Your task to perform on an android device: stop showing notifications on the lock screen Image 0: 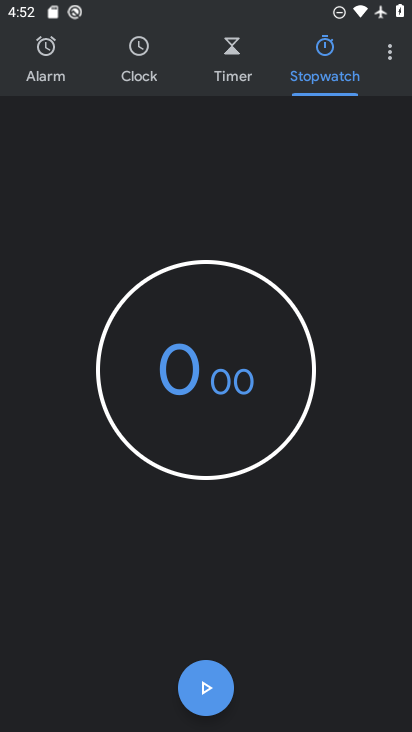
Step 0: press home button
Your task to perform on an android device: stop showing notifications on the lock screen Image 1: 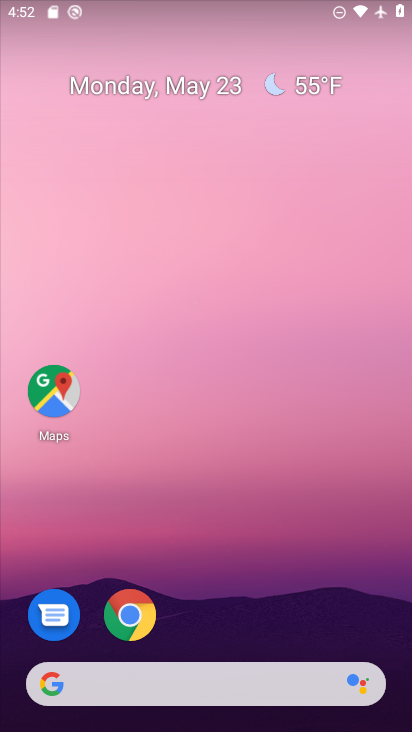
Step 1: drag from (361, 619) to (336, 197)
Your task to perform on an android device: stop showing notifications on the lock screen Image 2: 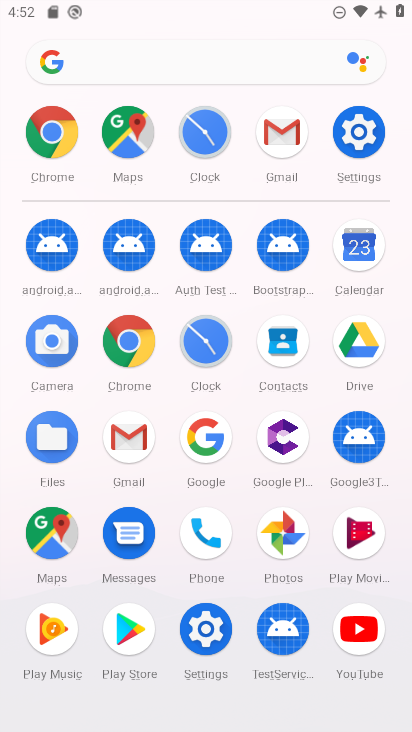
Step 2: click (224, 642)
Your task to perform on an android device: stop showing notifications on the lock screen Image 3: 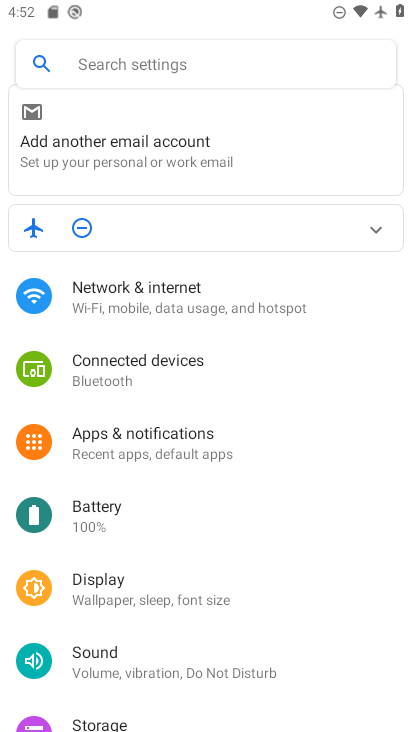
Step 3: drag from (367, 568) to (369, 473)
Your task to perform on an android device: stop showing notifications on the lock screen Image 4: 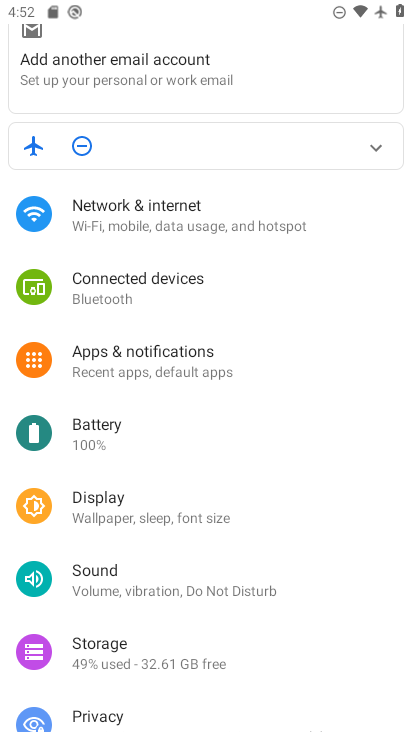
Step 4: drag from (359, 622) to (347, 485)
Your task to perform on an android device: stop showing notifications on the lock screen Image 5: 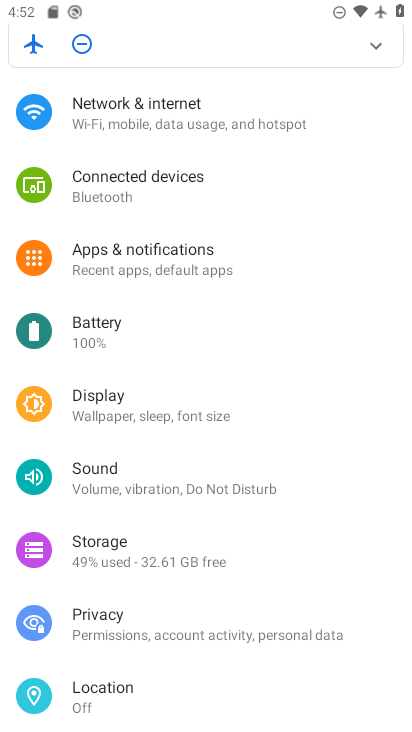
Step 5: drag from (358, 618) to (364, 398)
Your task to perform on an android device: stop showing notifications on the lock screen Image 6: 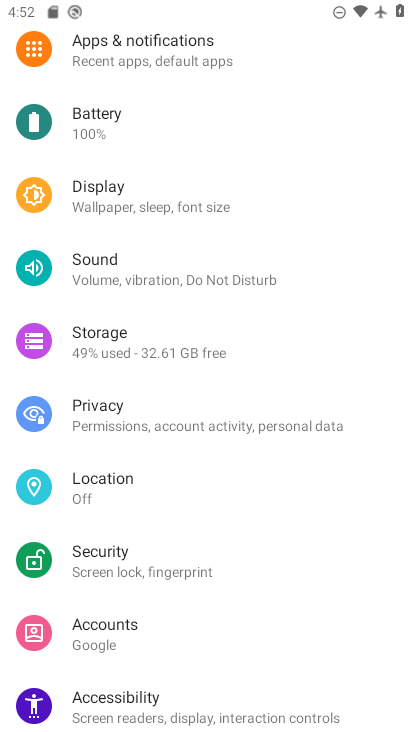
Step 6: drag from (363, 290) to (361, 515)
Your task to perform on an android device: stop showing notifications on the lock screen Image 7: 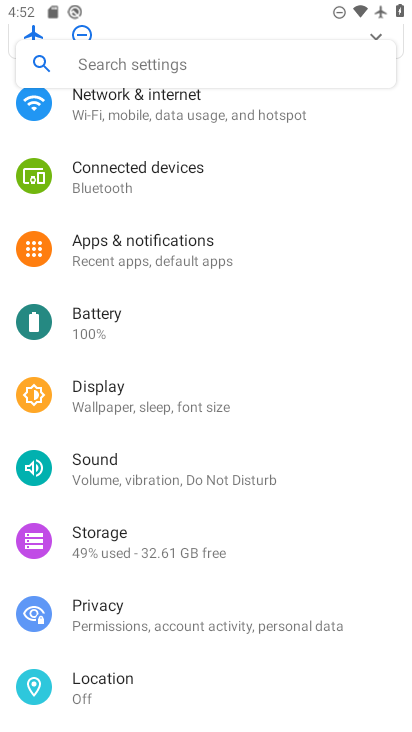
Step 7: drag from (335, 339) to (332, 487)
Your task to perform on an android device: stop showing notifications on the lock screen Image 8: 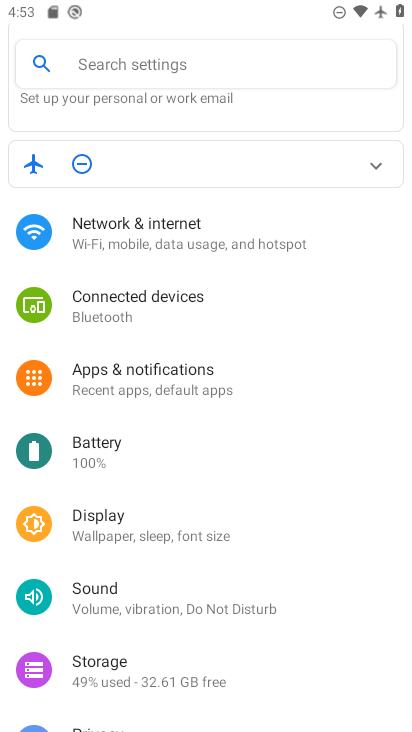
Step 8: click (205, 377)
Your task to perform on an android device: stop showing notifications on the lock screen Image 9: 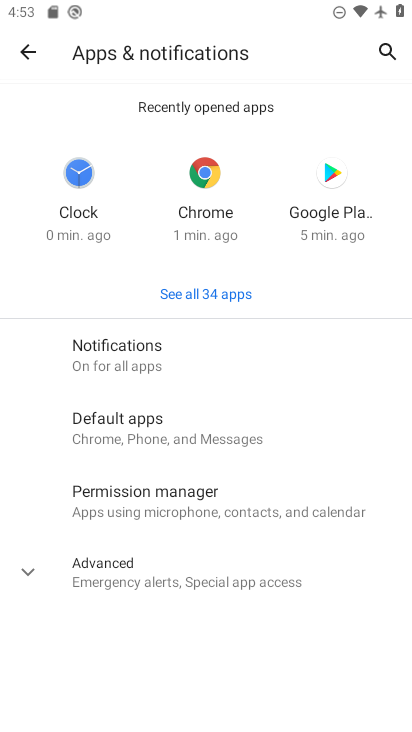
Step 9: click (205, 377)
Your task to perform on an android device: stop showing notifications on the lock screen Image 10: 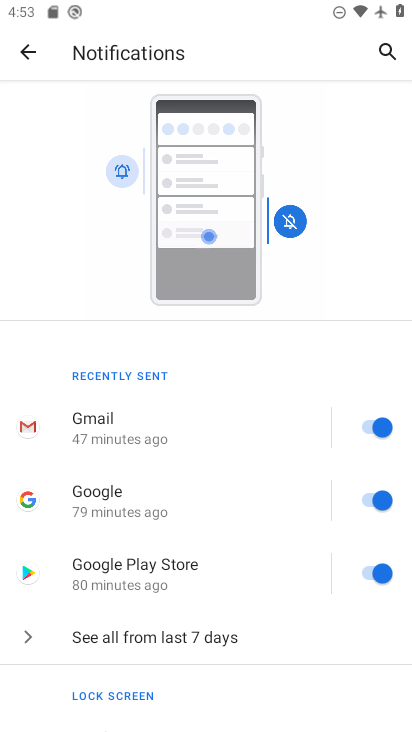
Step 10: drag from (267, 542) to (278, 396)
Your task to perform on an android device: stop showing notifications on the lock screen Image 11: 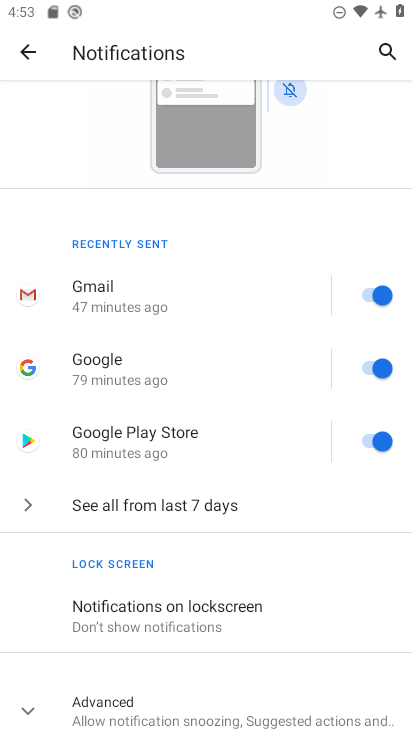
Step 11: click (265, 617)
Your task to perform on an android device: stop showing notifications on the lock screen Image 12: 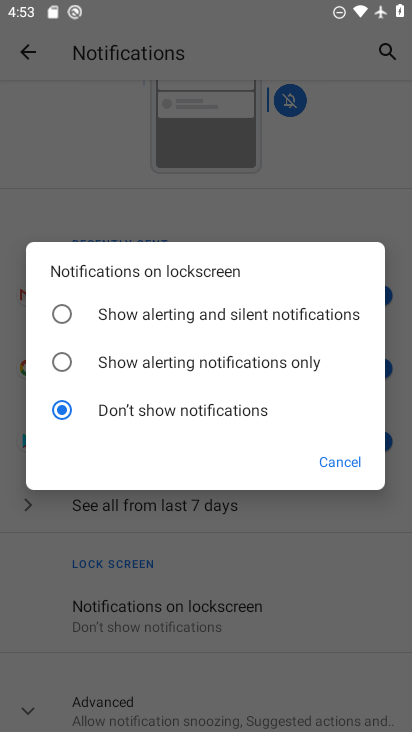
Step 12: task complete